Your task to perform on an android device: change alarm snooze length Image 0: 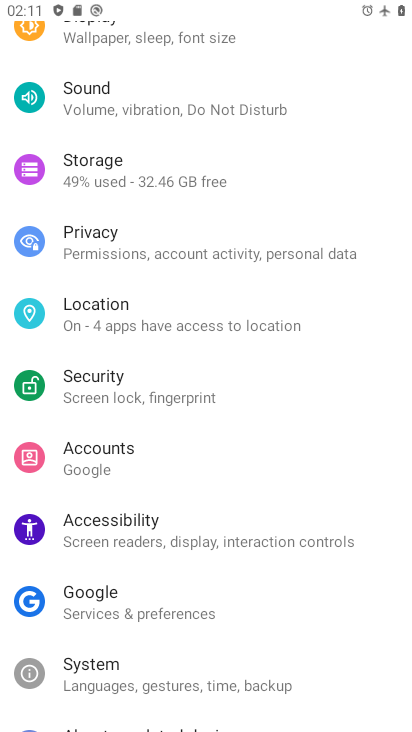
Step 0: press home button
Your task to perform on an android device: change alarm snooze length Image 1: 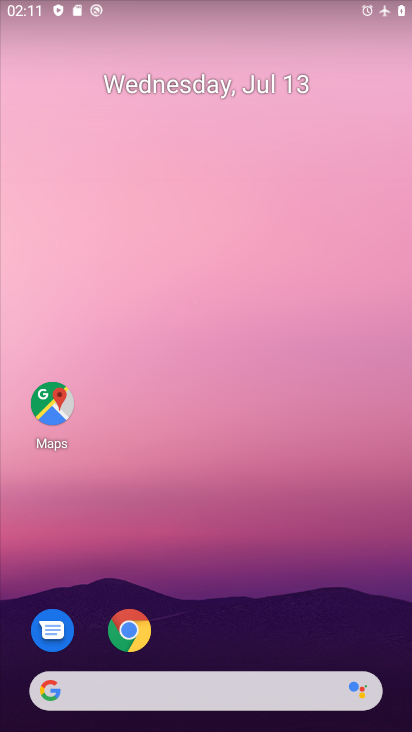
Step 1: drag from (218, 641) to (179, 308)
Your task to perform on an android device: change alarm snooze length Image 2: 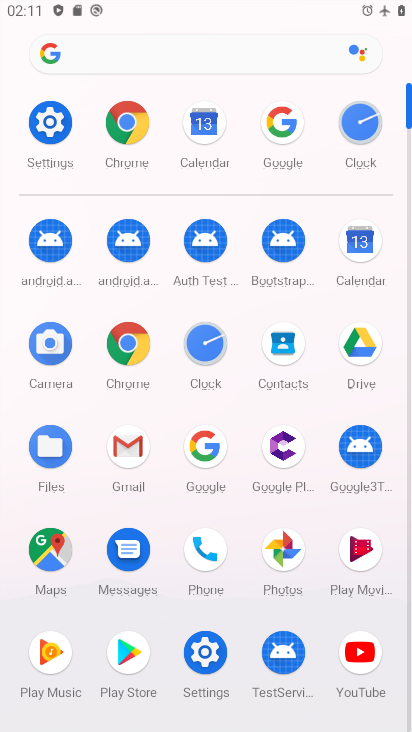
Step 2: click (340, 139)
Your task to perform on an android device: change alarm snooze length Image 3: 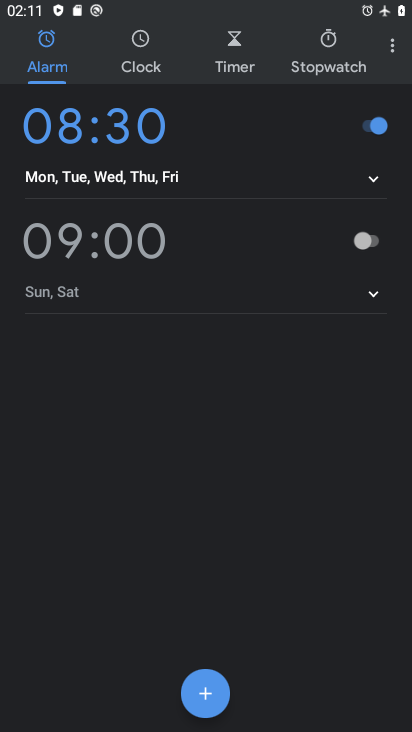
Step 3: click (387, 50)
Your task to perform on an android device: change alarm snooze length Image 4: 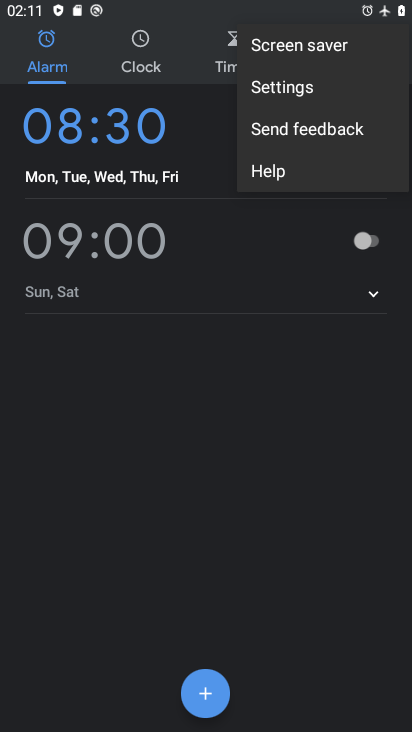
Step 4: click (335, 90)
Your task to perform on an android device: change alarm snooze length Image 5: 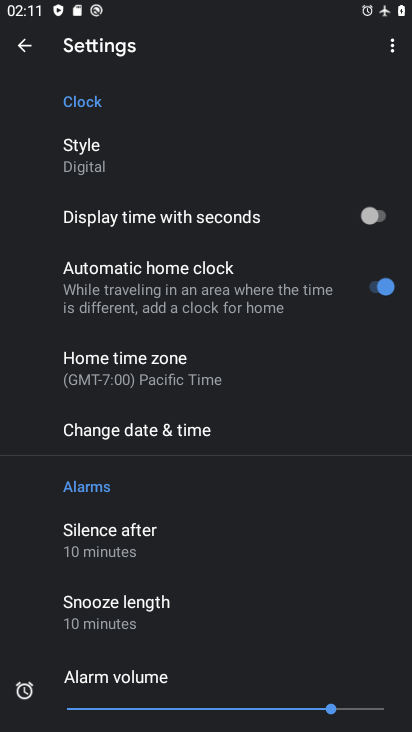
Step 5: drag from (179, 577) to (186, 456)
Your task to perform on an android device: change alarm snooze length Image 6: 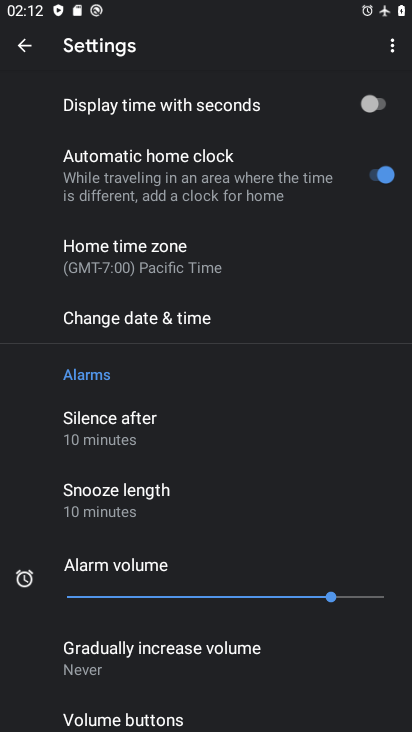
Step 6: click (155, 476)
Your task to perform on an android device: change alarm snooze length Image 7: 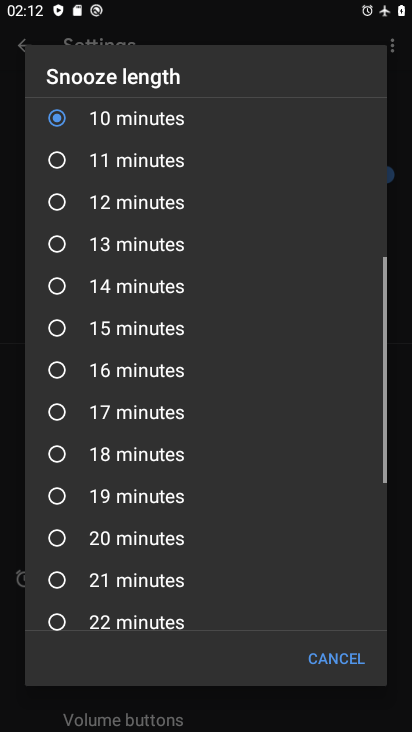
Step 7: click (155, 347)
Your task to perform on an android device: change alarm snooze length Image 8: 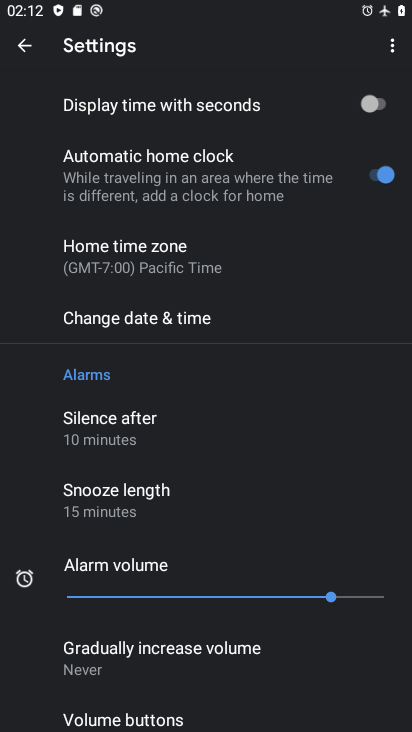
Step 8: task complete